Your task to perform on an android device: move a message to another label in the gmail app Image 0: 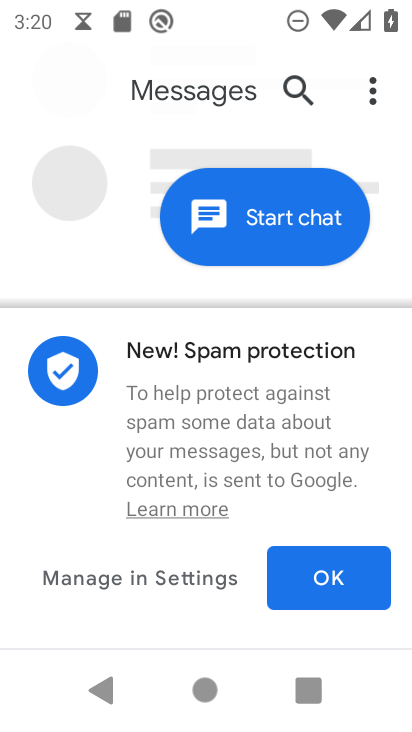
Step 0: press home button
Your task to perform on an android device: move a message to another label in the gmail app Image 1: 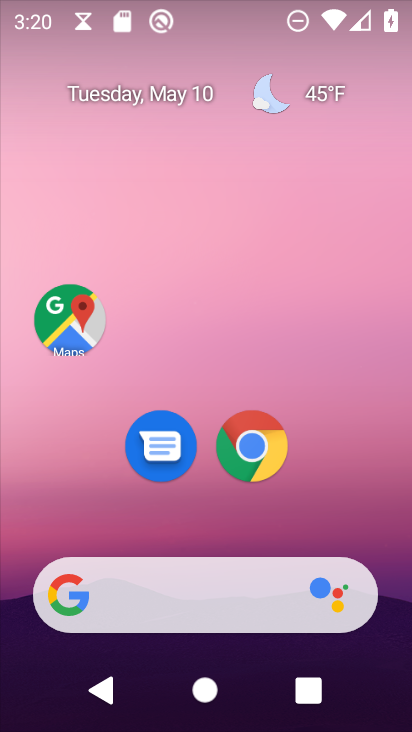
Step 1: drag from (366, 434) to (408, 338)
Your task to perform on an android device: move a message to another label in the gmail app Image 2: 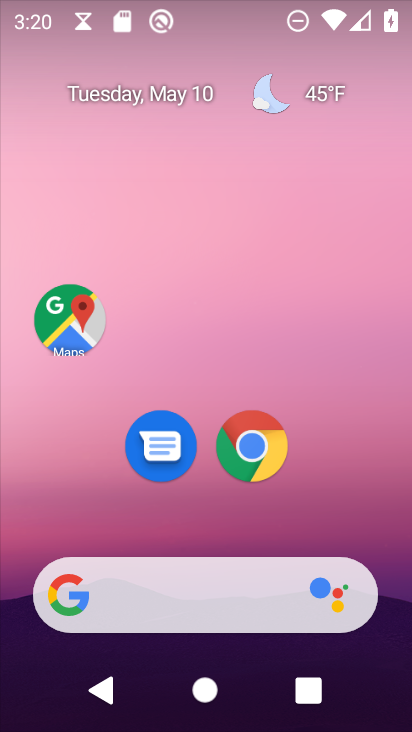
Step 2: drag from (385, 466) to (387, 96)
Your task to perform on an android device: move a message to another label in the gmail app Image 3: 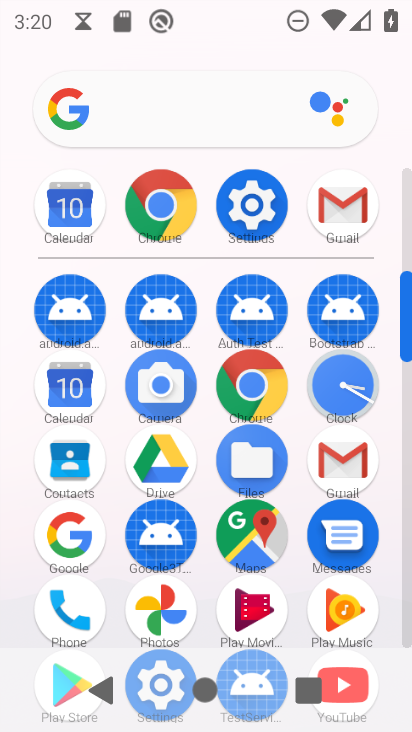
Step 3: click (346, 215)
Your task to perform on an android device: move a message to another label in the gmail app Image 4: 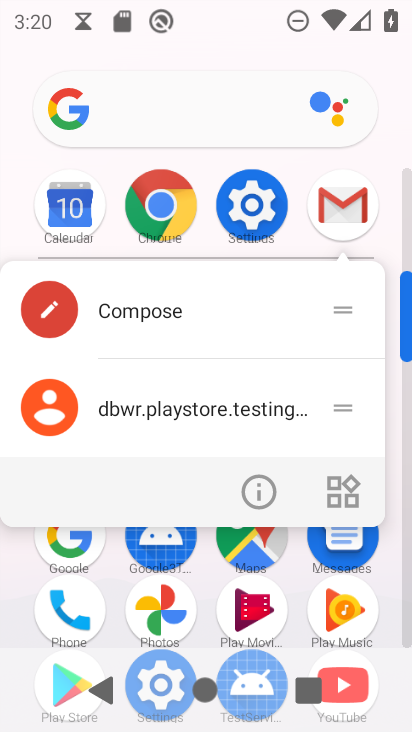
Step 4: click (346, 212)
Your task to perform on an android device: move a message to another label in the gmail app Image 5: 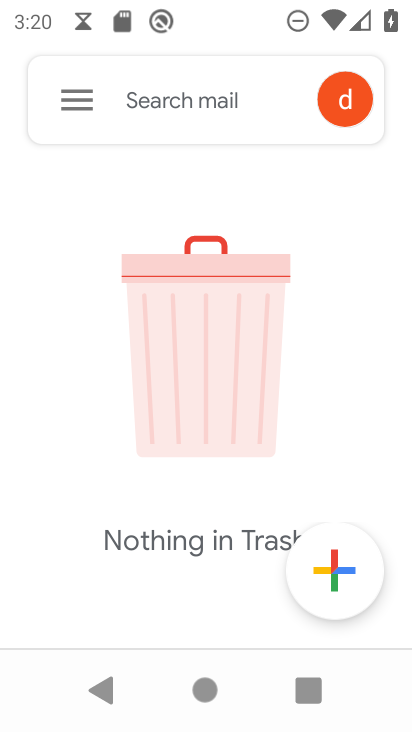
Step 5: click (87, 97)
Your task to perform on an android device: move a message to another label in the gmail app Image 6: 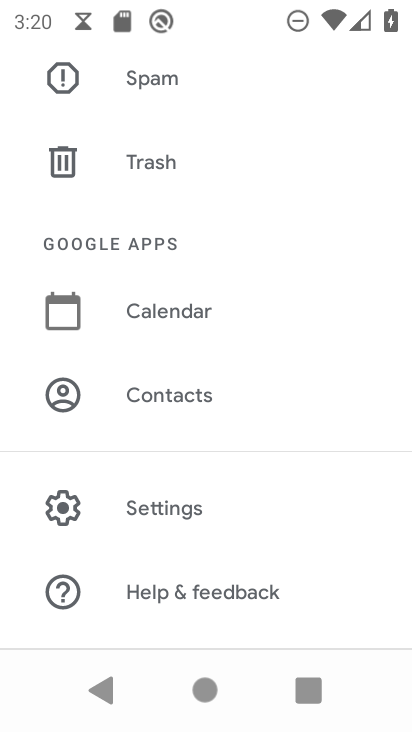
Step 6: drag from (126, 236) to (237, 673)
Your task to perform on an android device: move a message to another label in the gmail app Image 7: 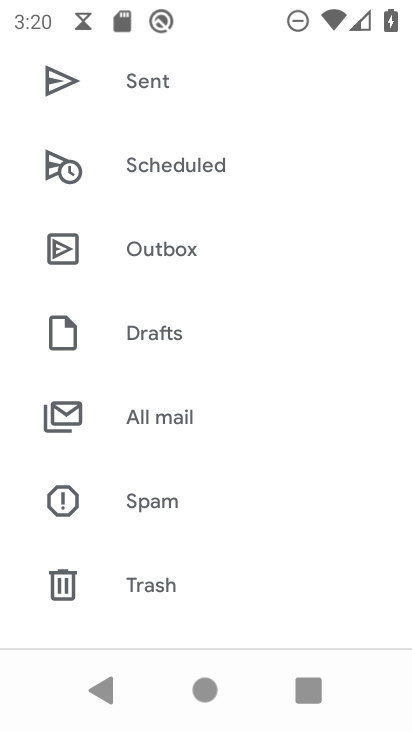
Step 7: drag from (226, 248) to (317, 583)
Your task to perform on an android device: move a message to another label in the gmail app Image 8: 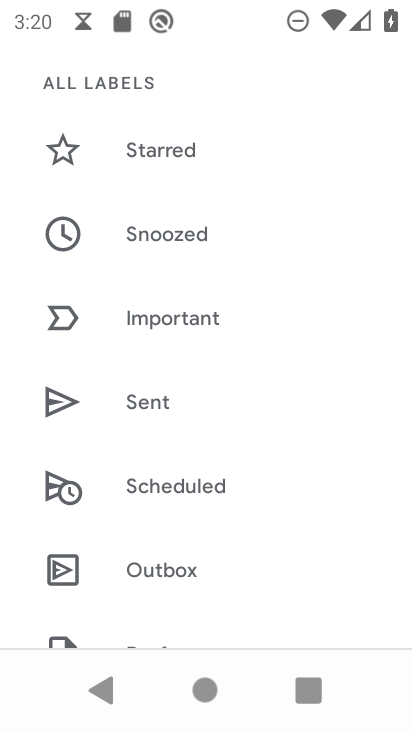
Step 8: drag from (251, 217) to (328, 548)
Your task to perform on an android device: move a message to another label in the gmail app Image 9: 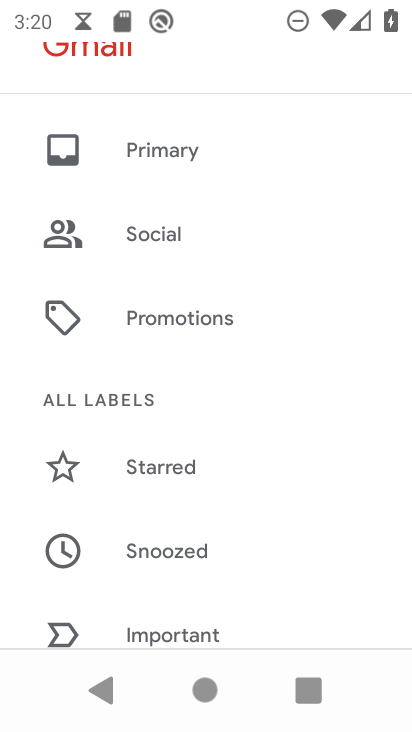
Step 9: drag from (255, 181) to (328, 482)
Your task to perform on an android device: move a message to another label in the gmail app Image 10: 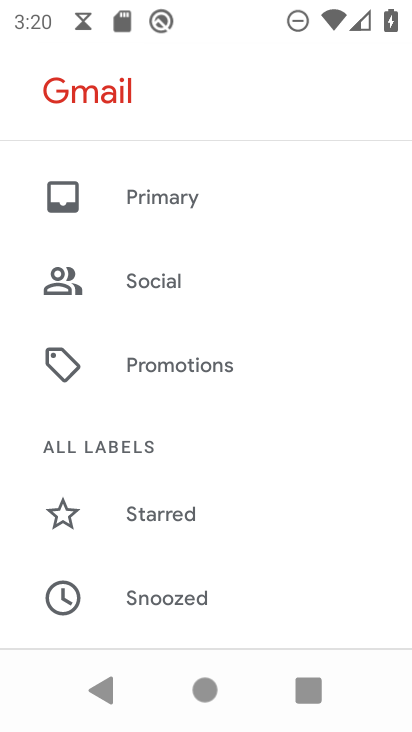
Step 10: drag from (295, 537) to (241, 165)
Your task to perform on an android device: move a message to another label in the gmail app Image 11: 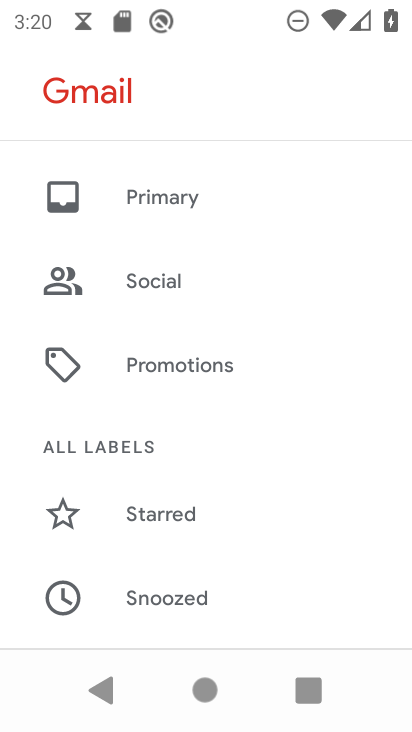
Step 11: drag from (151, 540) to (207, 184)
Your task to perform on an android device: move a message to another label in the gmail app Image 12: 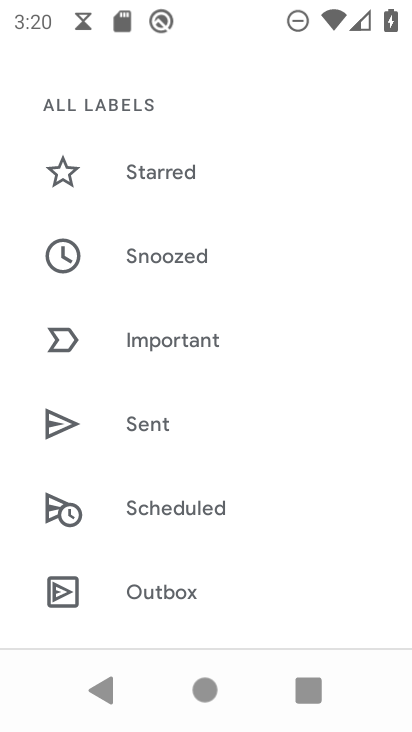
Step 12: drag from (185, 510) to (257, 131)
Your task to perform on an android device: move a message to another label in the gmail app Image 13: 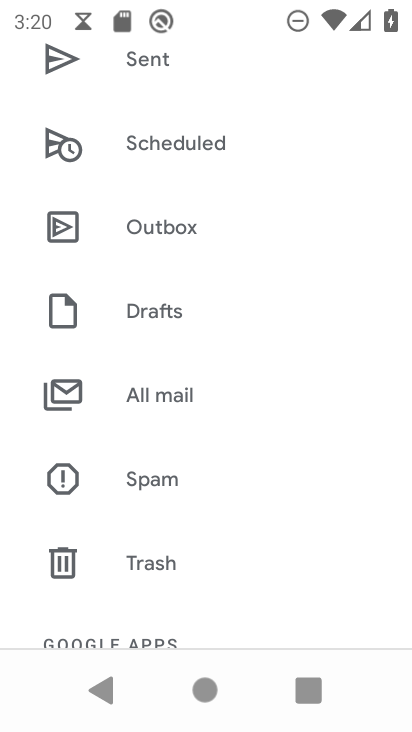
Step 13: click (190, 397)
Your task to perform on an android device: move a message to another label in the gmail app Image 14: 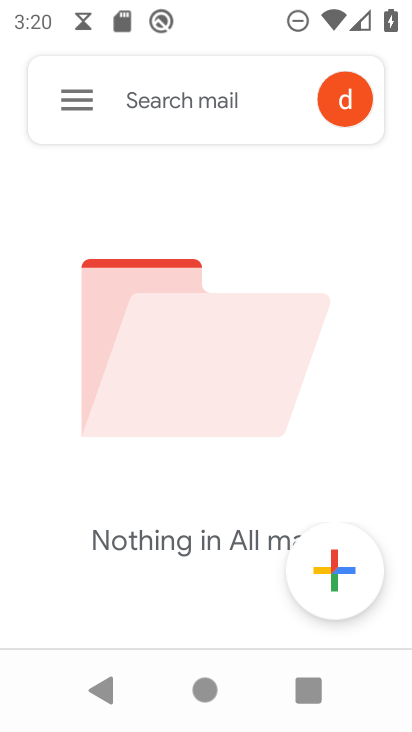
Step 14: task complete